Your task to perform on an android device: What is the recent news? Image 0: 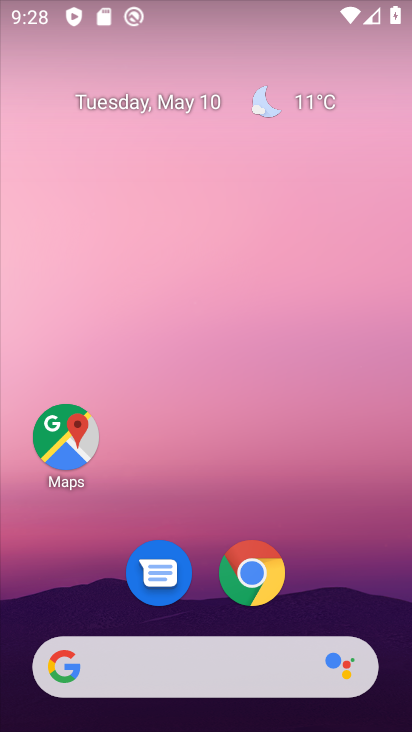
Step 0: click (254, 560)
Your task to perform on an android device: What is the recent news? Image 1: 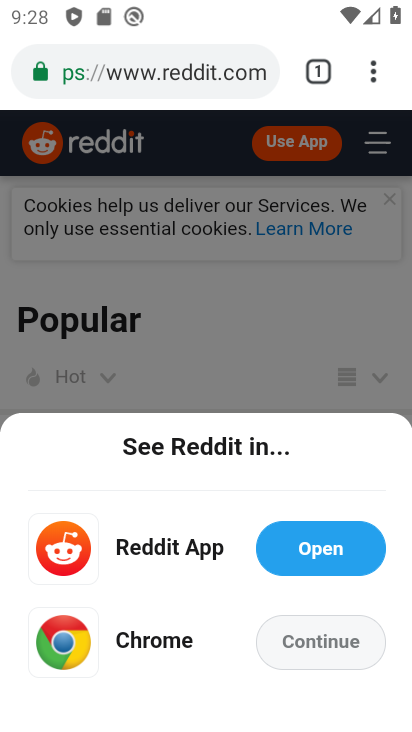
Step 1: click (135, 72)
Your task to perform on an android device: What is the recent news? Image 2: 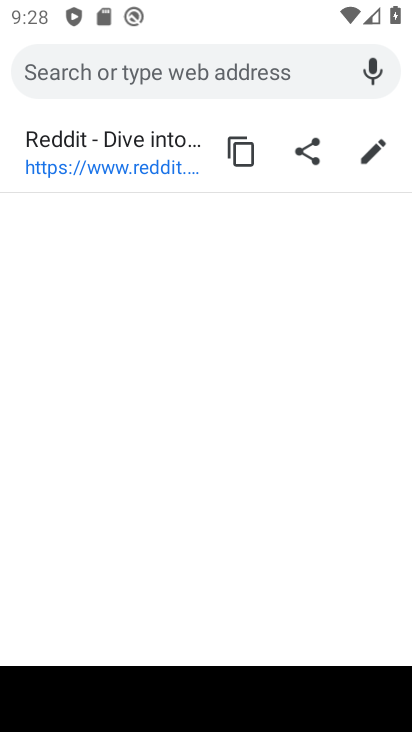
Step 2: type "what is the recent news?"
Your task to perform on an android device: What is the recent news? Image 3: 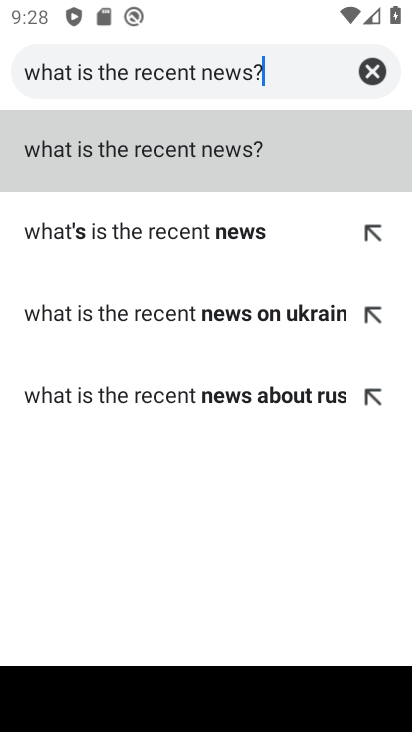
Step 3: click (231, 158)
Your task to perform on an android device: What is the recent news? Image 4: 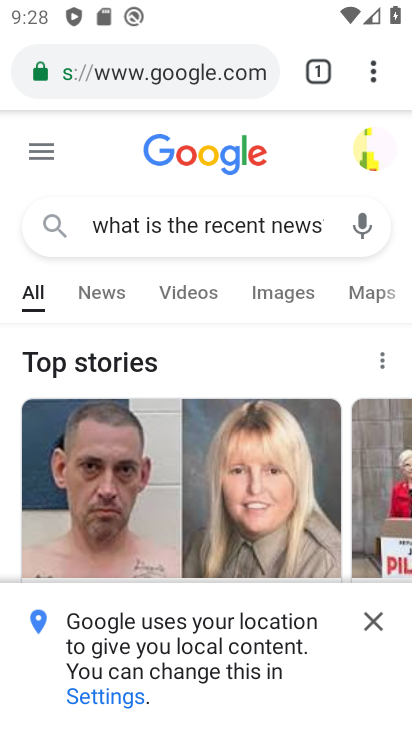
Step 4: task complete